Your task to perform on an android device: Go to Android settings Image 0: 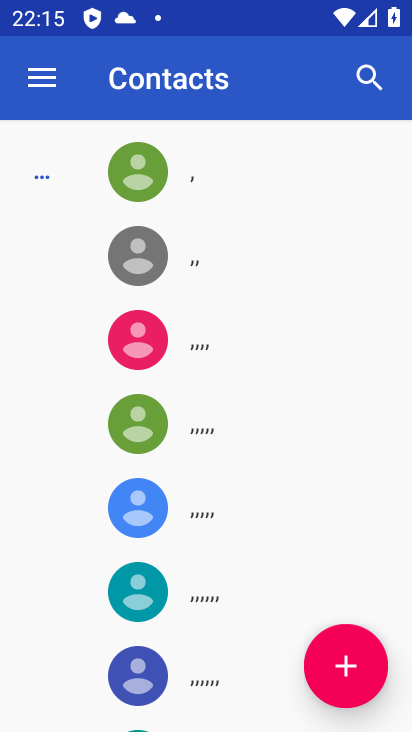
Step 0: press home button
Your task to perform on an android device: Go to Android settings Image 1: 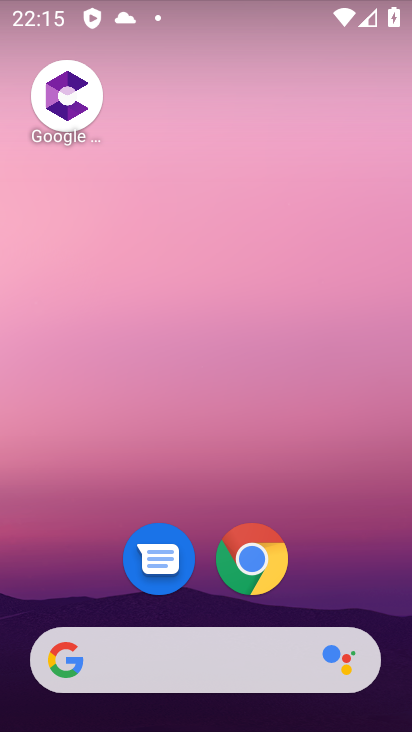
Step 1: drag from (345, 556) to (400, 90)
Your task to perform on an android device: Go to Android settings Image 2: 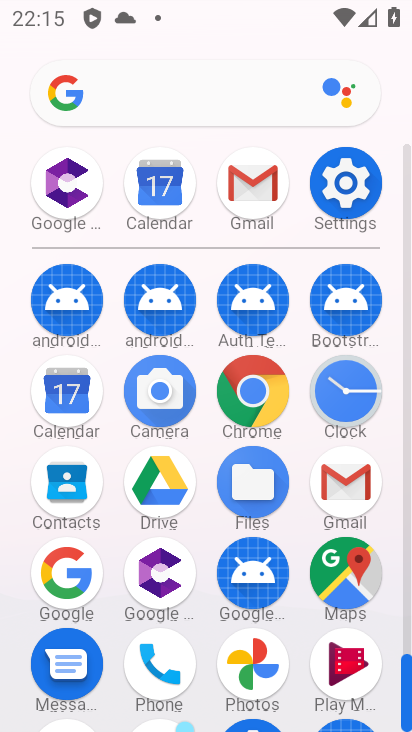
Step 2: click (361, 172)
Your task to perform on an android device: Go to Android settings Image 3: 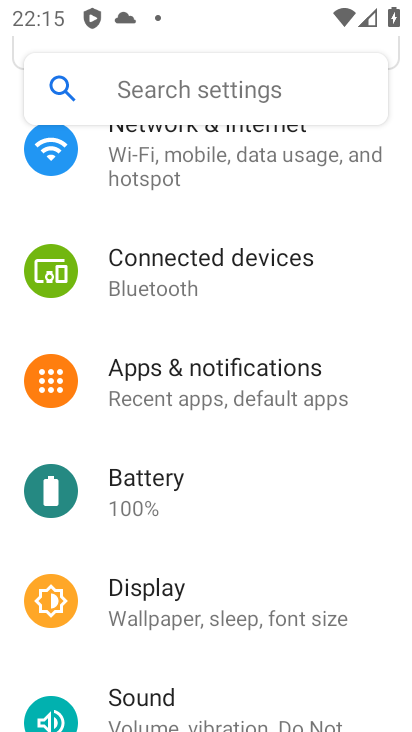
Step 3: task complete